Your task to perform on an android device: Go to sound settings Image 0: 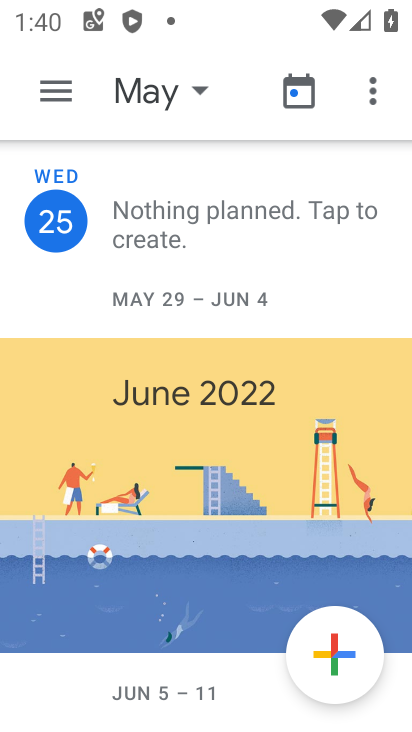
Step 0: press home button
Your task to perform on an android device: Go to sound settings Image 1: 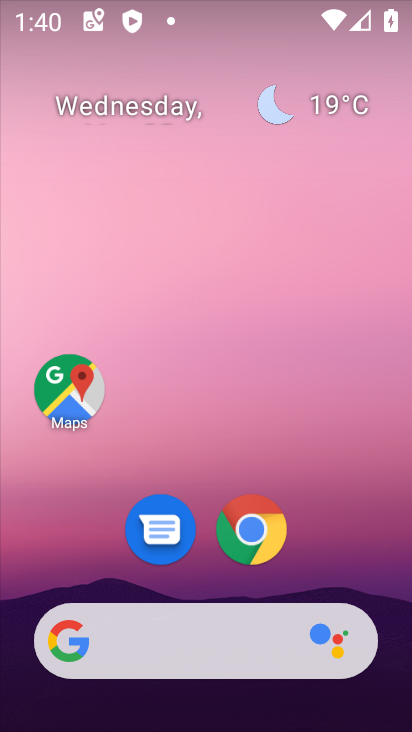
Step 1: drag from (107, 603) to (185, 104)
Your task to perform on an android device: Go to sound settings Image 2: 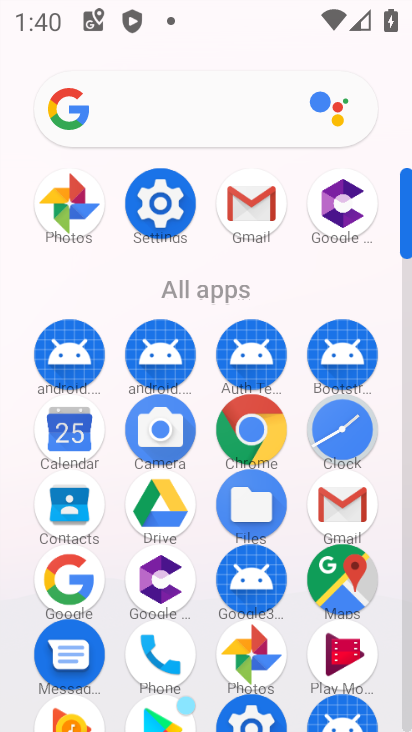
Step 2: drag from (162, 612) to (226, 352)
Your task to perform on an android device: Go to sound settings Image 3: 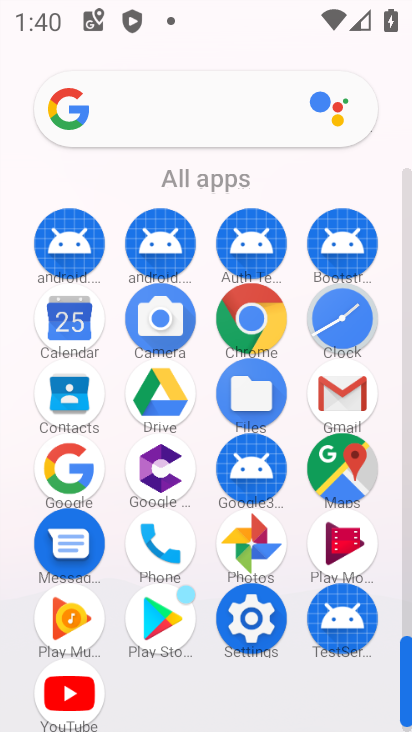
Step 3: click (257, 610)
Your task to perform on an android device: Go to sound settings Image 4: 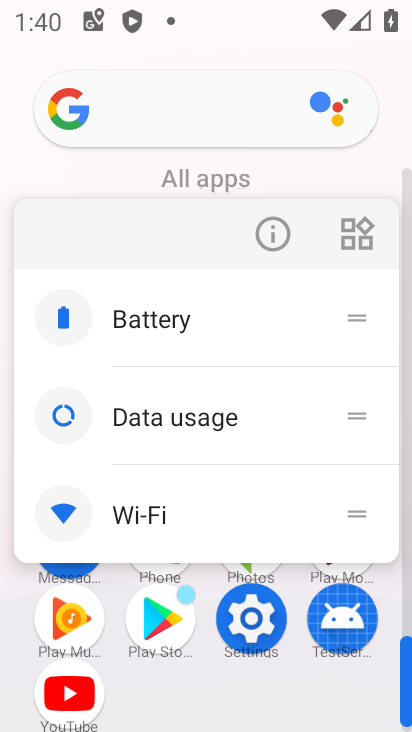
Step 4: click (254, 629)
Your task to perform on an android device: Go to sound settings Image 5: 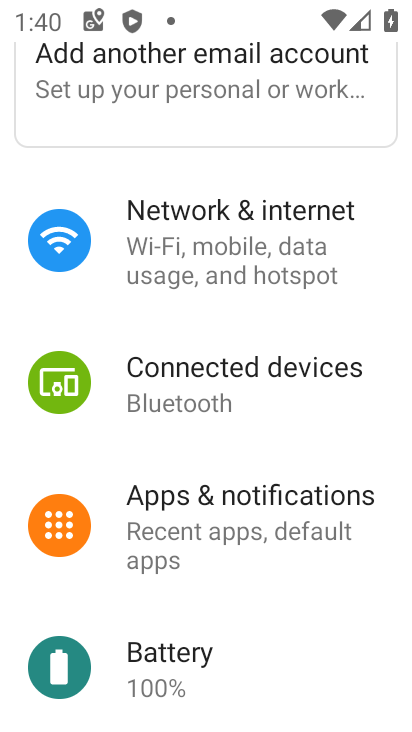
Step 5: drag from (194, 694) to (270, 255)
Your task to perform on an android device: Go to sound settings Image 6: 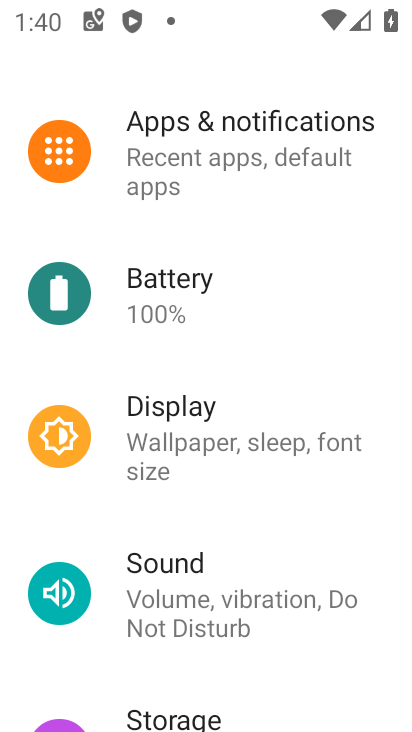
Step 6: click (197, 601)
Your task to perform on an android device: Go to sound settings Image 7: 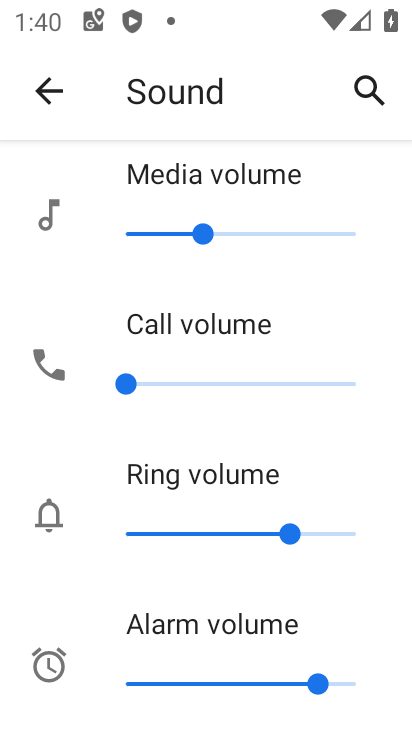
Step 7: task complete